Your task to perform on an android device: Toggle the flashlight Image 0: 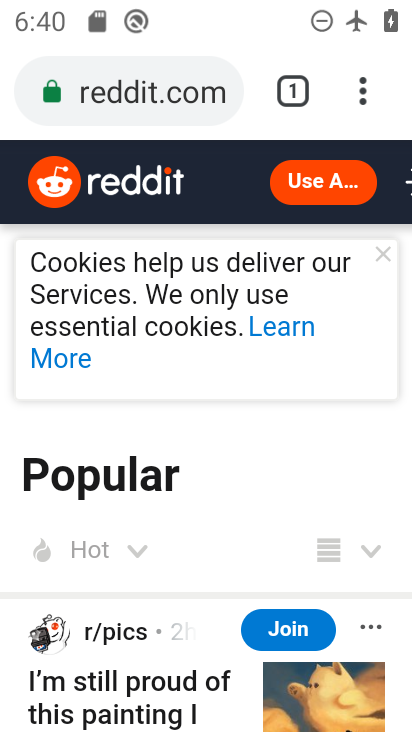
Step 0: press home button
Your task to perform on an android device: Toggle the flashlight Image 1: 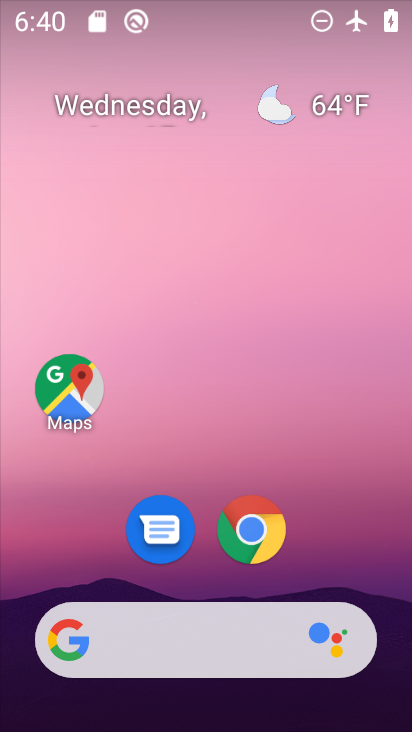
Step 1: task complete